Your task to perform on an android device: change the clock display to show seconds Image 0: 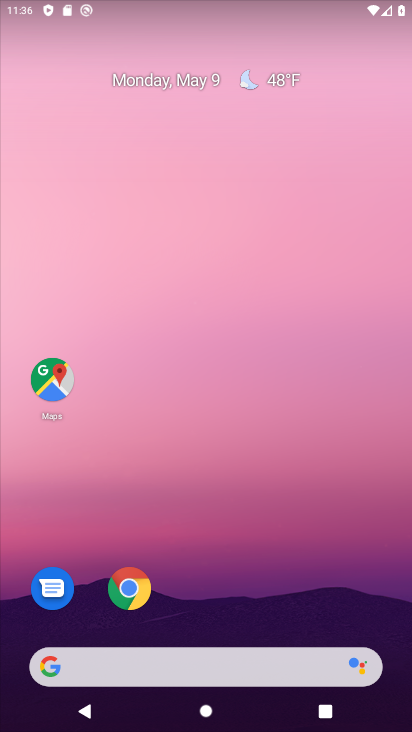
Step 0: click (313, 361)
Your task to perform on an android device: change the clock display to show seconds Image 1: 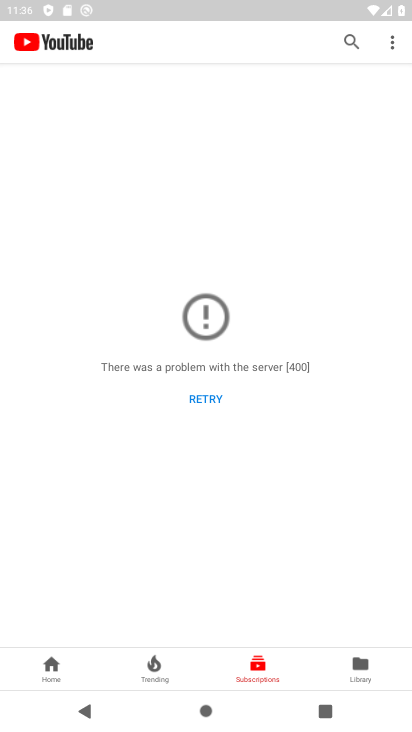
Step 1: press home button
Your task to perform on an android device: change the clock display to show seconds Image 2: 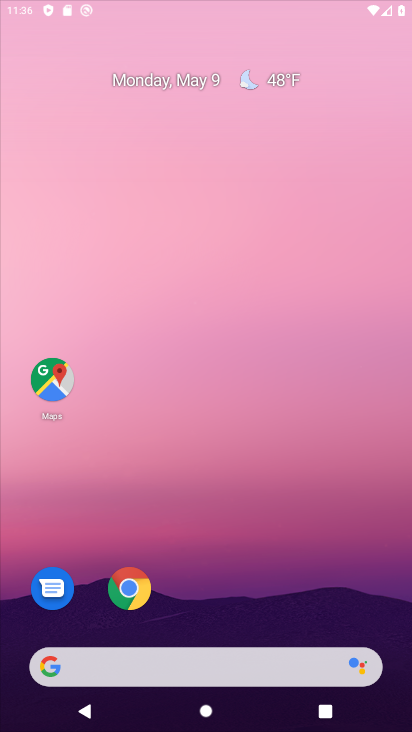
Step 2: drag from (332, 536) to (346, 372)
Your task to perform on an android device: change the clock display to show seconds Image 3: 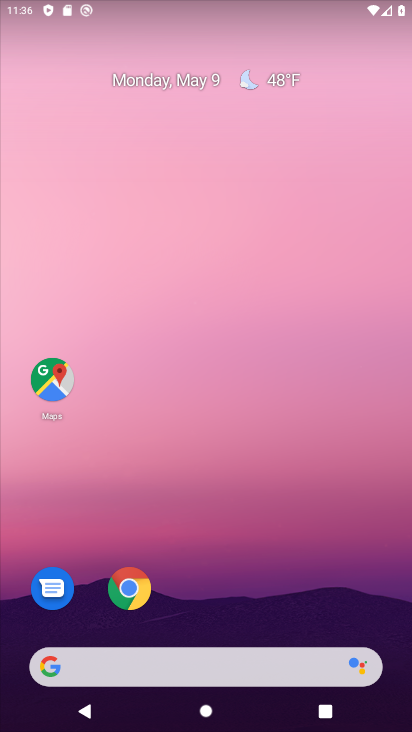
Step 3: drag from (297, 577) to (332, 352)
Your task to perform on an android device: change the clock display to show seconds Image 4: 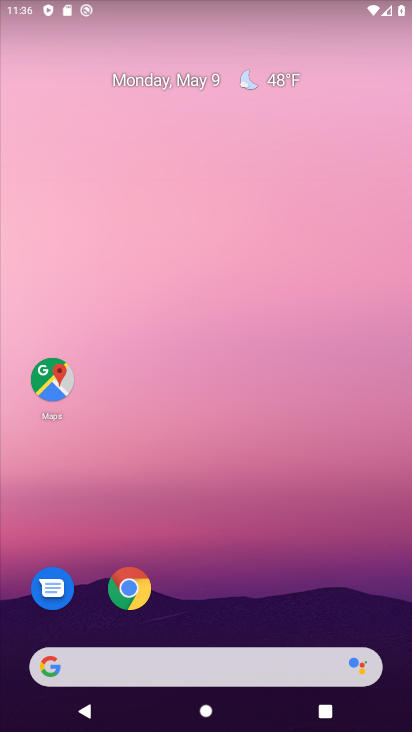
Step 4: drag from (275, 493) to (290, 341)
Your task to perform on an android device: change the clock display to show seconds Image 5: 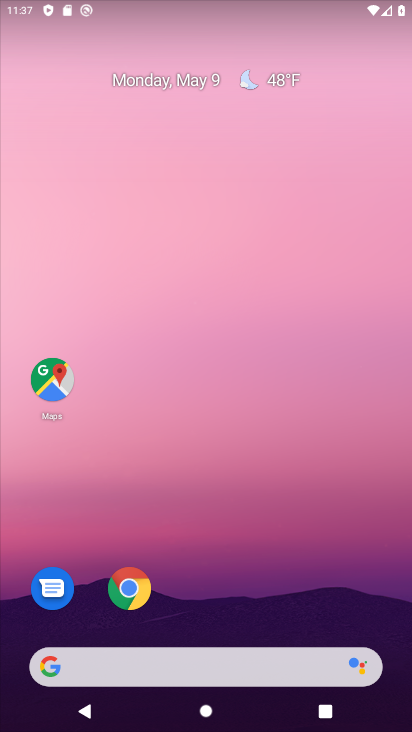
Step 5: drag from (268, 313) to (268, 266)
Your task to perform on an android device: change the clock display to show seconds Image 6: 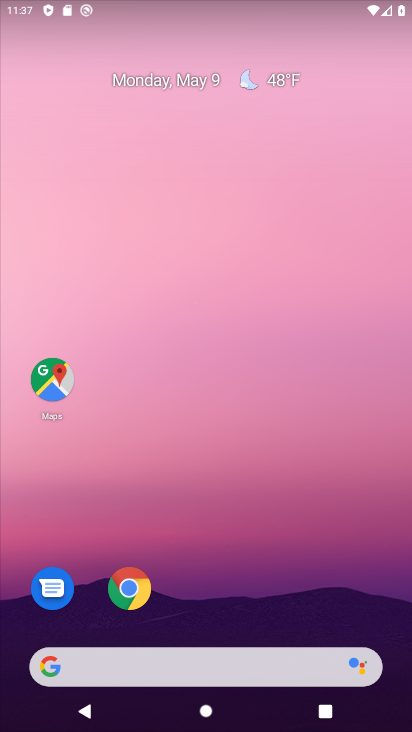
Step 6: drag from (191, 551) to (196, 231)
Your task to perform on an android device: change the clock display to show seconds Image 7: 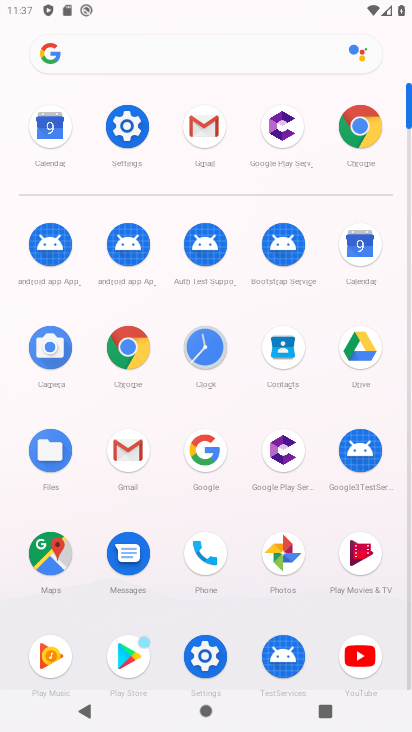
Step 7: click (213, 354)
Your task to perform on an android device: change the clock display to show seconds Image 8: 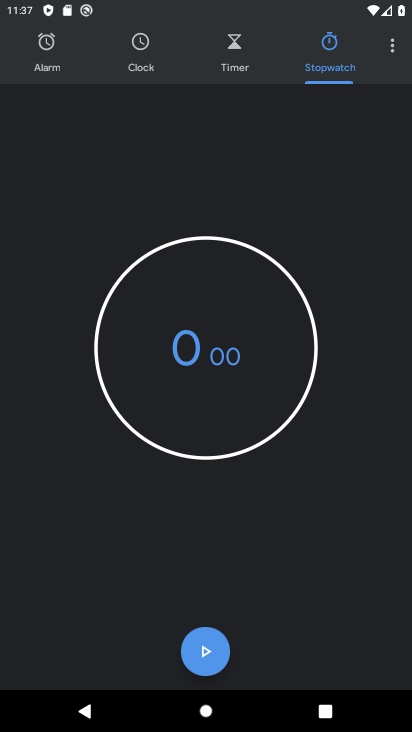
Step 8: click (394, 57)
Your task to perform on an android device: change the clock display to show seconds Image 9: 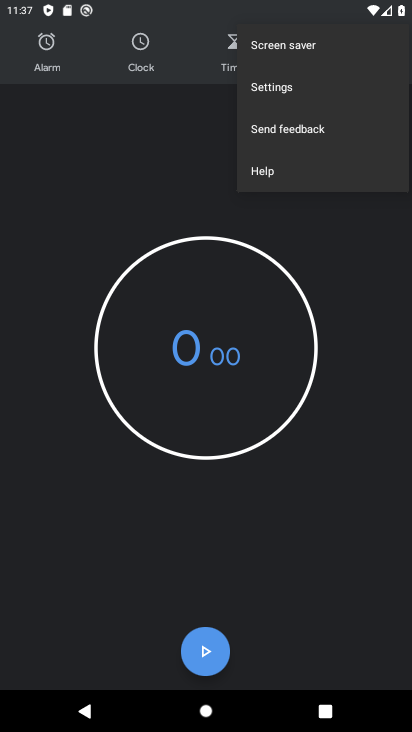
Step 9: click (296, 91)
Your task to perform on an android device: change the clock display to show seconds Image 10: 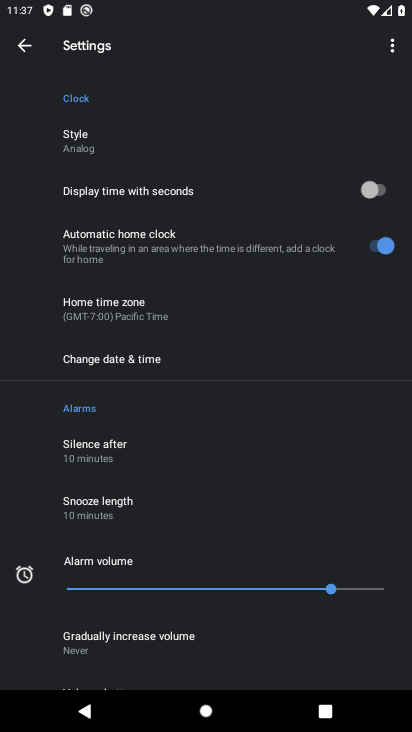
Step 10: click (384, 185)
Your task to perform on an android device: change the clock display to show seconds Image 11: 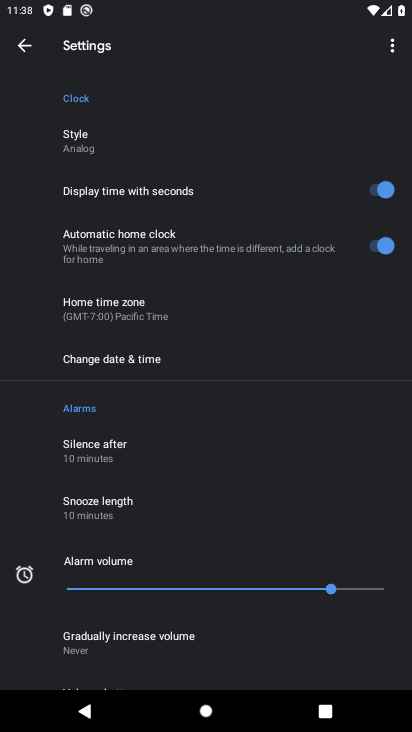
Step 11: task complete